Your task to perform on an android device: turn on location history Image 0: 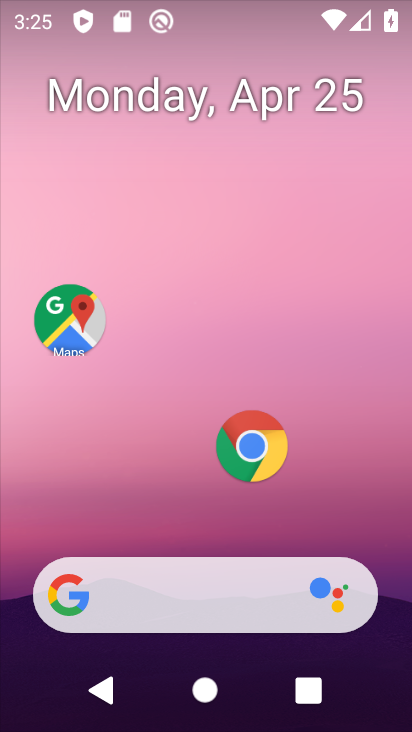
Step 0: drag from (144, 540) to (281, 5)
Your task to perform on an android device: turn on location history Image 1: 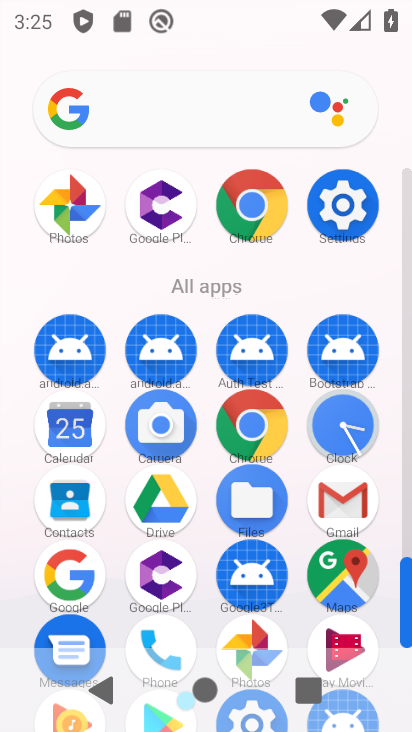
Step 1: click (349, 216)
Your task to perform on an android device: turn on location history Image 2: 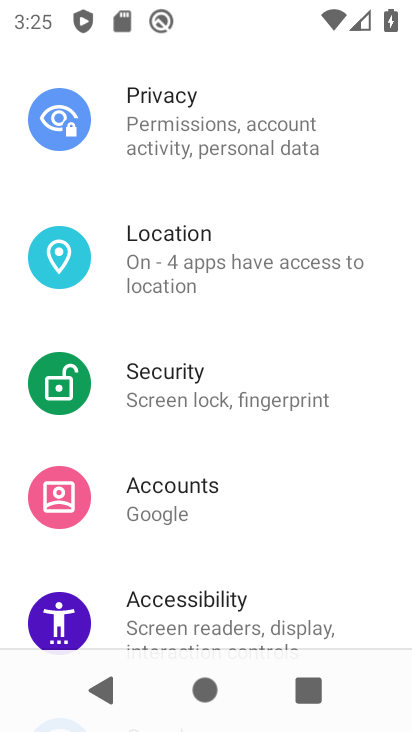
Step 2: click (180, 278)
Your task to perform on an android device: turn on location history Image 3: 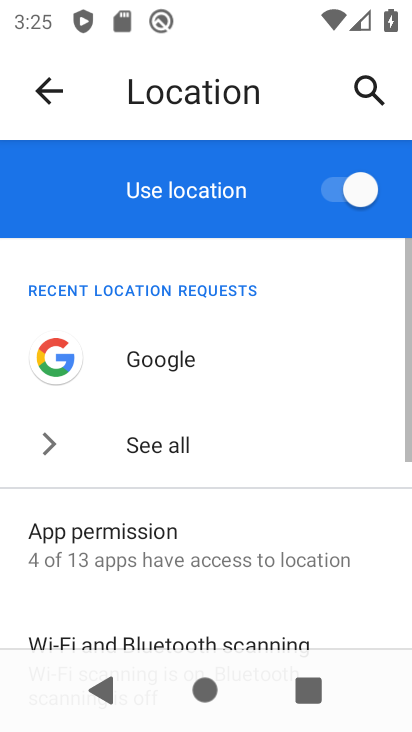
Step 3: drag from (94, 599) to (132, 209)
Your task to perform on an android device: turn on location history Image 4: 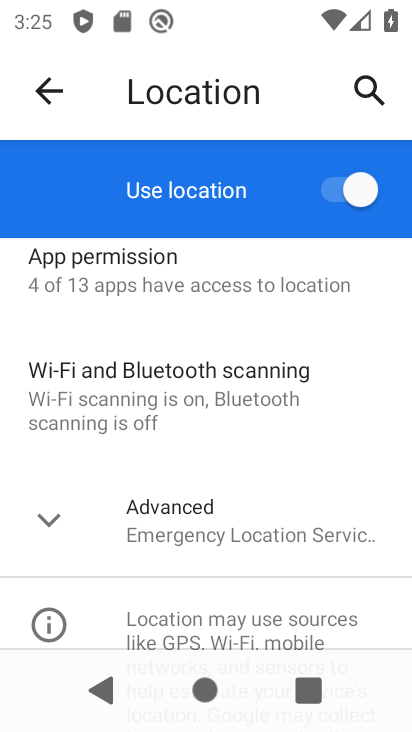
Step 4: click (183, 550)
Your task to perform on an android device: turn on location history Image 5: 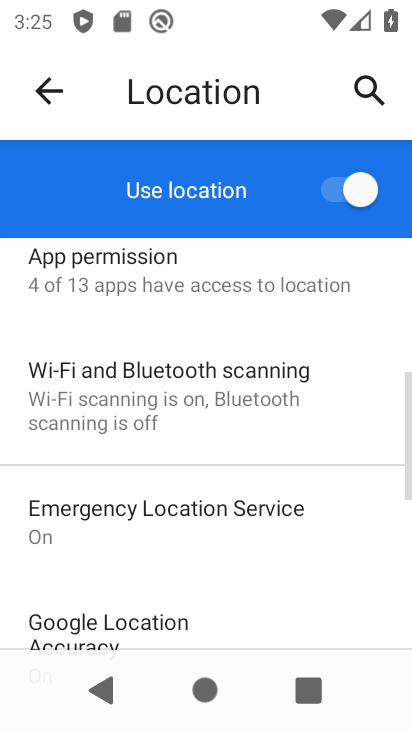
Step 5: drag from (183, 550) to (167, 31)
Your task to perform on an android device: turn on location history Image 6: 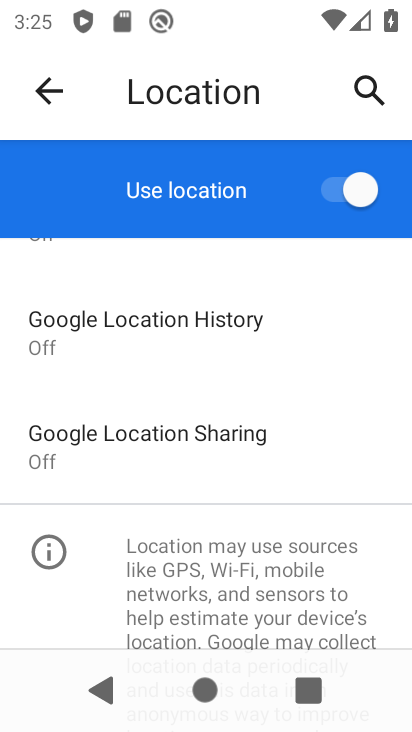
Step 6: click (237, 325)
Your task to perform on an android device: turn on location history Image 7: 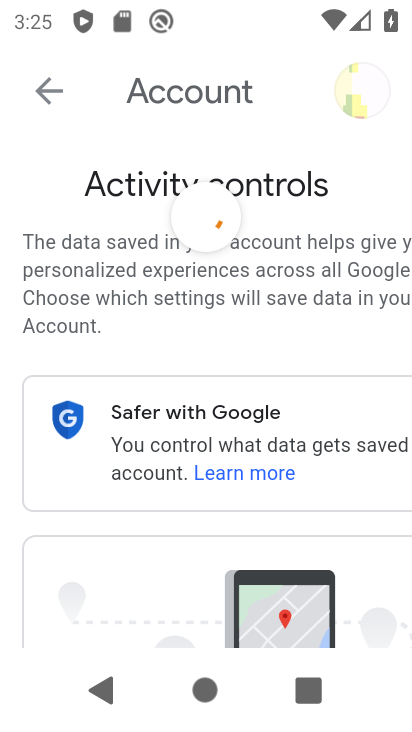
Step 7: click (217, 582)
Your task to perform on an android device: turn on location history Image 8: 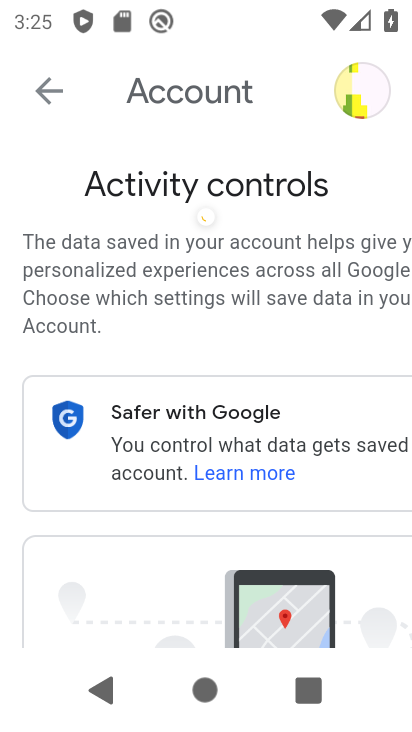
Step 8: task complete